Your task to perform on an android device: Go to accessibility settings Image 0: 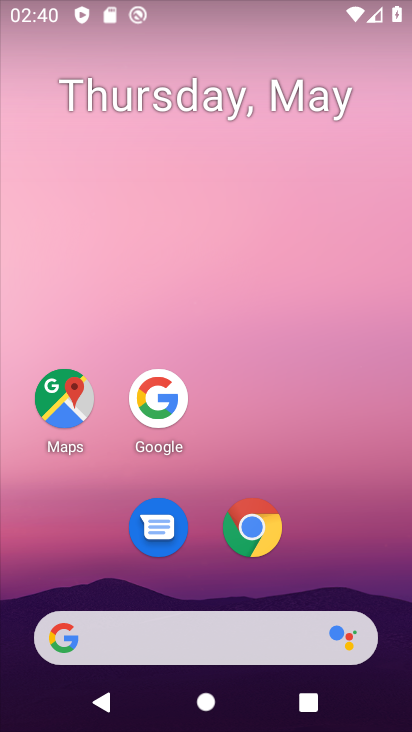
Step 0: click (220, 339)
Your task to perform on an android device: Go to accessibility settings Image 1: 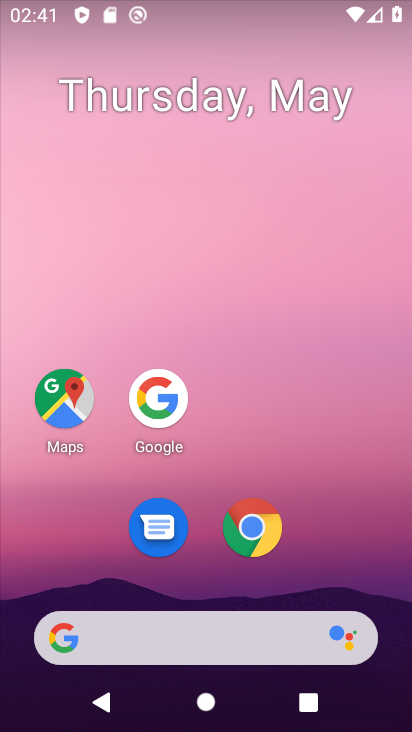
Step 1: drag from (218, 574) to (254, 174)
Your task to perform on an android device: Go to accessibility settings Image 2: 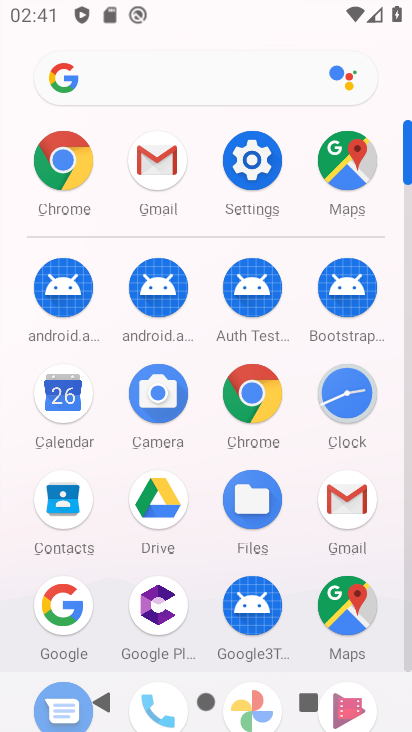
Step 2: click (268, 159)
Your task to perform on an android device: Go to accessibility settings Image 3: 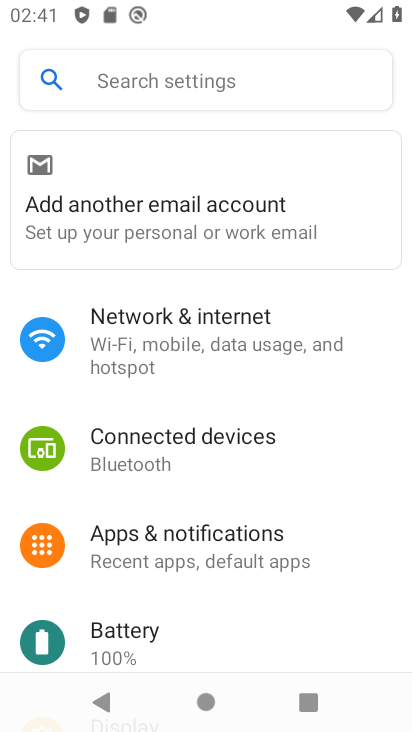
Step 3: drag from (159, 511) to (214, 259)
Your task to perform on an android device: Go to accessibility settings Image 4: 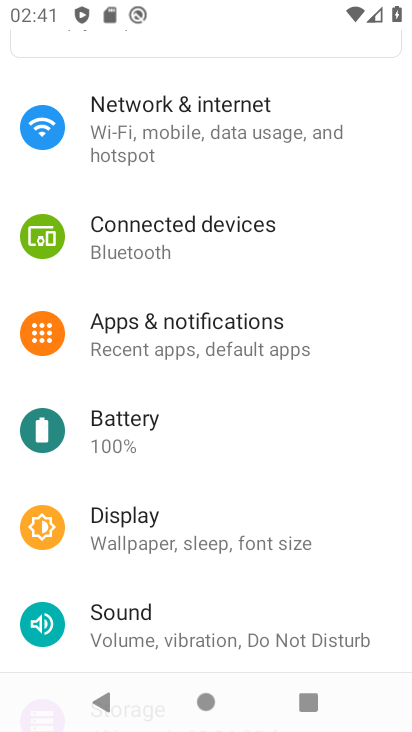
Step 4: drag from (191, 533) to (217, 119)
Your task to perform on an android device: Go to accessibility settings Image 5: 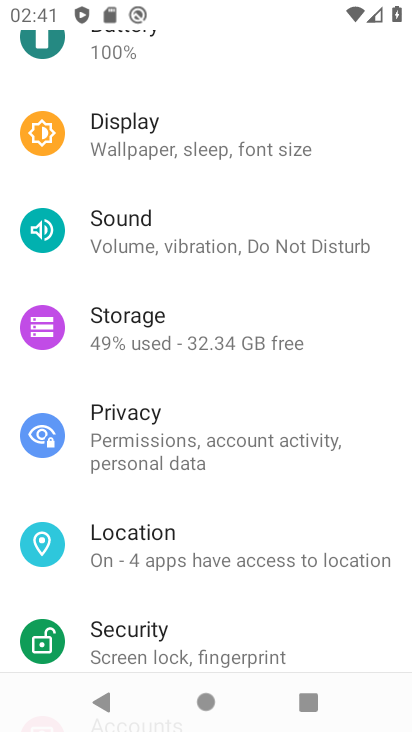
Step 5: drag from (193, 594) to (229, 207)
Your task to perform on an android device: Go to accessibility settings Image 6: 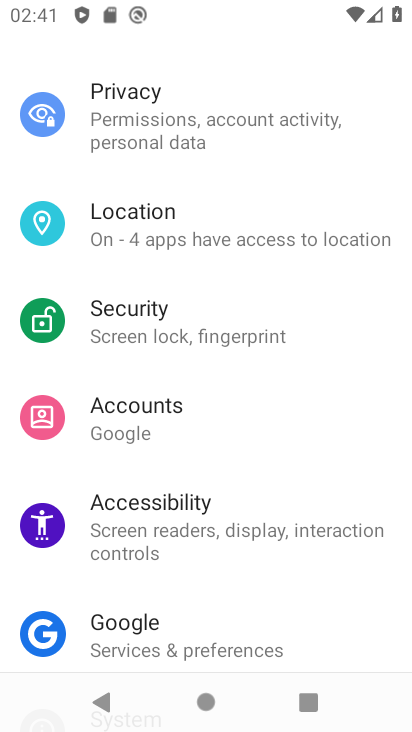
Step 6: click (145, 520)
Your task to perform on an android device: Go to accessibility settings Image 7: 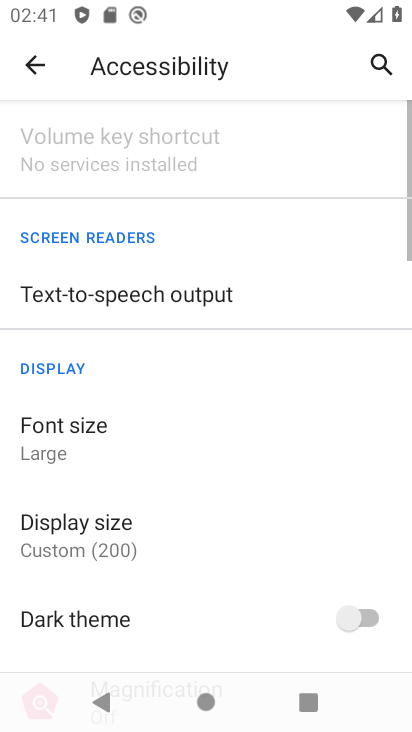
Step 7: drag from (157, 498) to (236, 129)
Your task to perform on an android device: Go to accessibility settings Image 8: 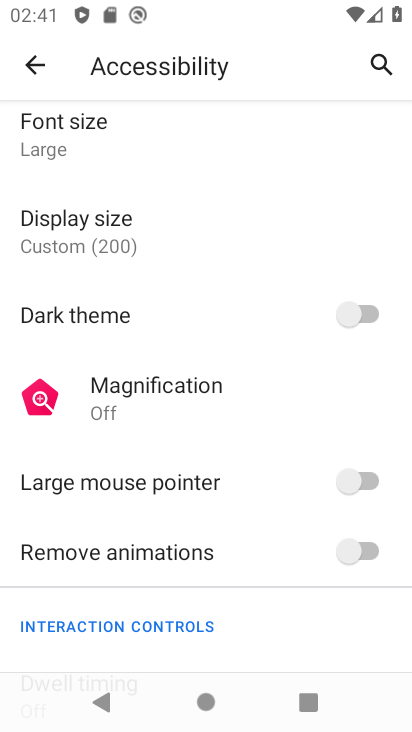
Step 8: drag from (210, 444) to (245, 196)
Your task to perform on an android device: Go to accessibility settings Image 9: 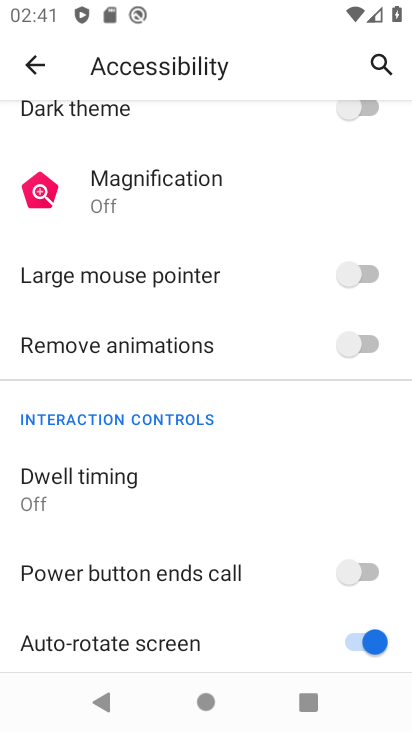
Step 9: drag from (200, 499) to (227, 204)
Your task to perform on an android device: Go to accessibility settings Image 10: 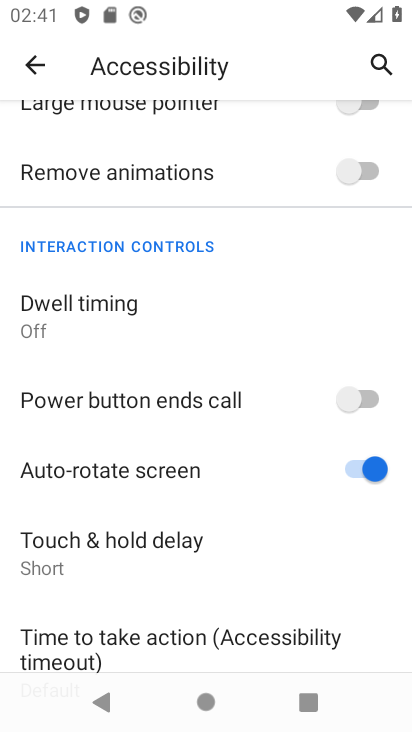
Step 10: drag from (283, 562) to (376, 84)
Your task to perform on an android device: Go to accessibility settings Image 11: 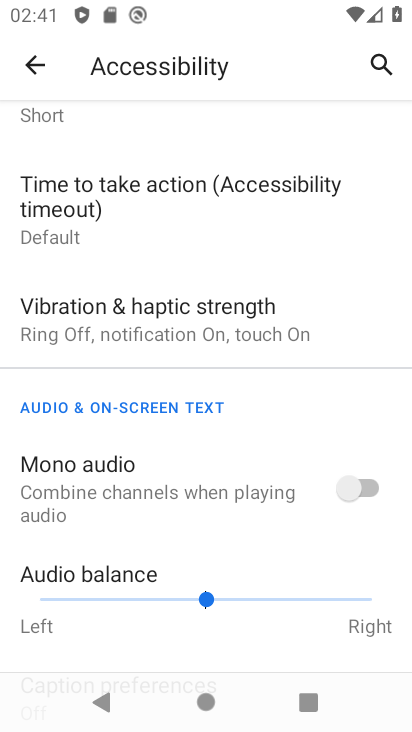
Step 11: click (295, 232)
Your task to perform on an android device: Go to accessibility settings Image 12: 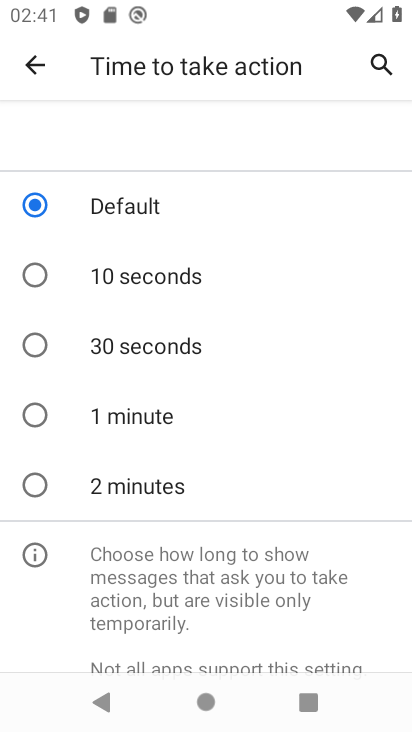
Step 12: click (27, 71)
Your task to perform on an android device: Go to accessibility settings Image 13: 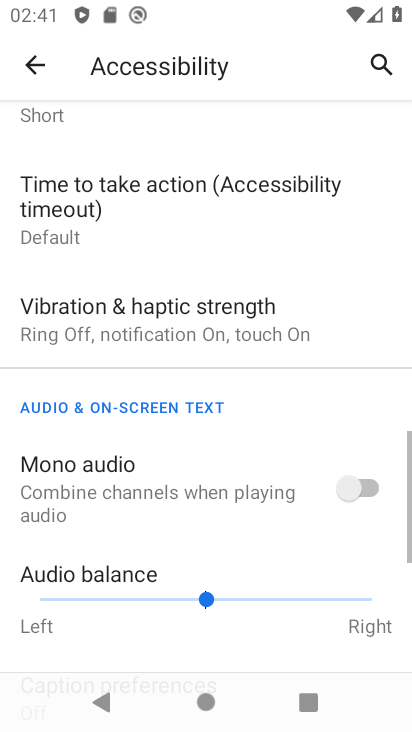
Step 13: task complete